Your task to perform on an android device: open app "Spotify: Music and Podcasts" (install if not already installed) Image 0: 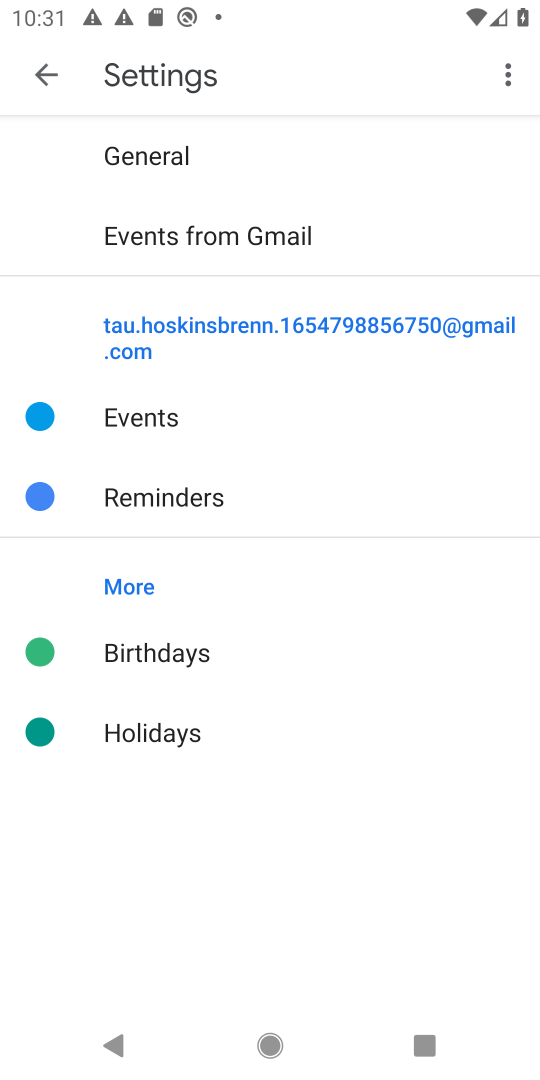
Step 0: drag from (313, 357) to (362, 946)
Your task to perform on an android device: open app "Spotify: Music and Podcasts" (install if not already installed) Image 1: 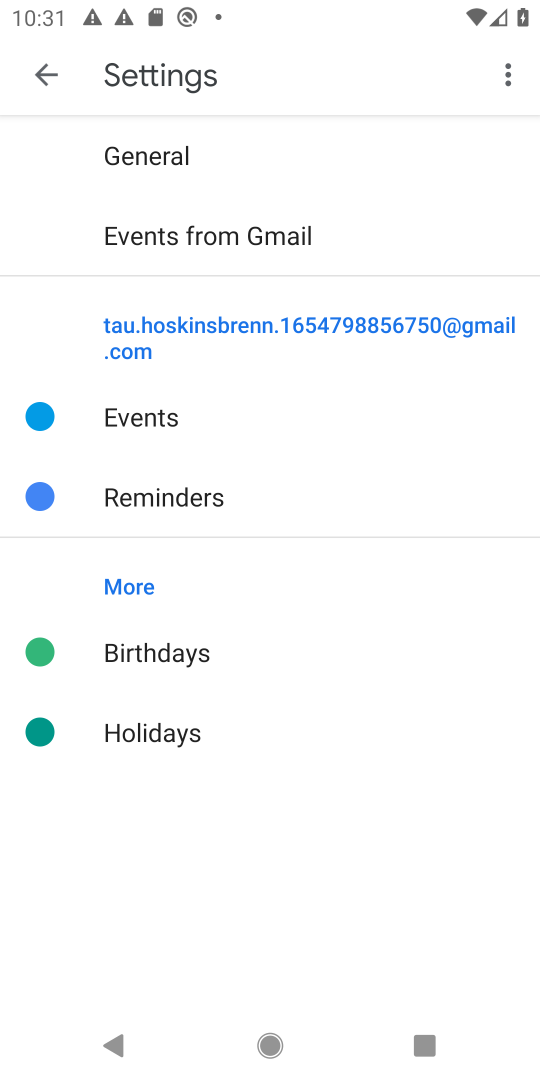
Step 1: press home button
Your task to perform on an android device: open app "Spotify: Music and Podcasts" (install if not already installed) Image 2: 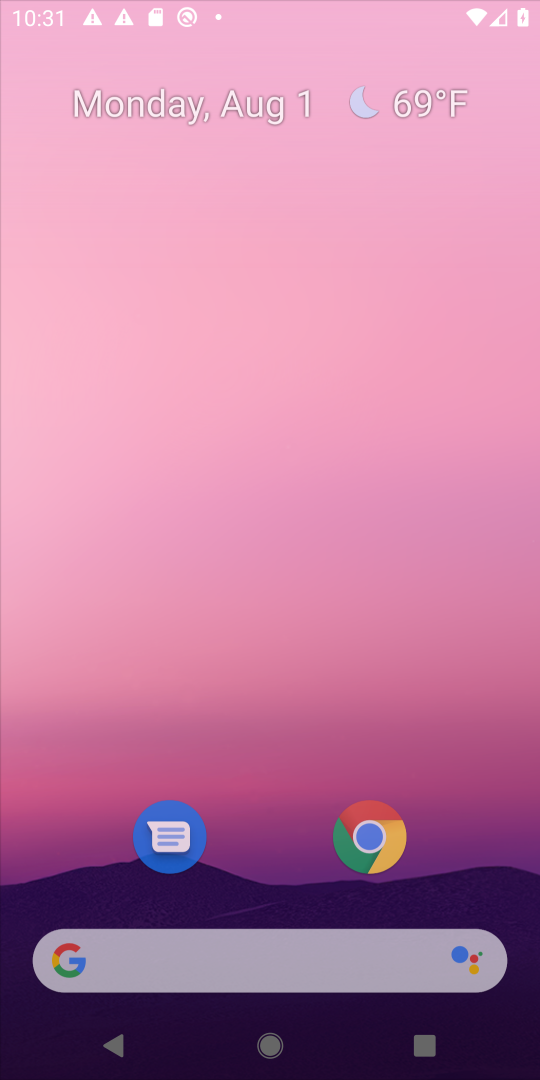
Step 2: drag from (294, 690) to (418, 54)
Your task to perform on an android device: open app "Spotify: Music and Podcasts" (install if not already installed) Image 3: 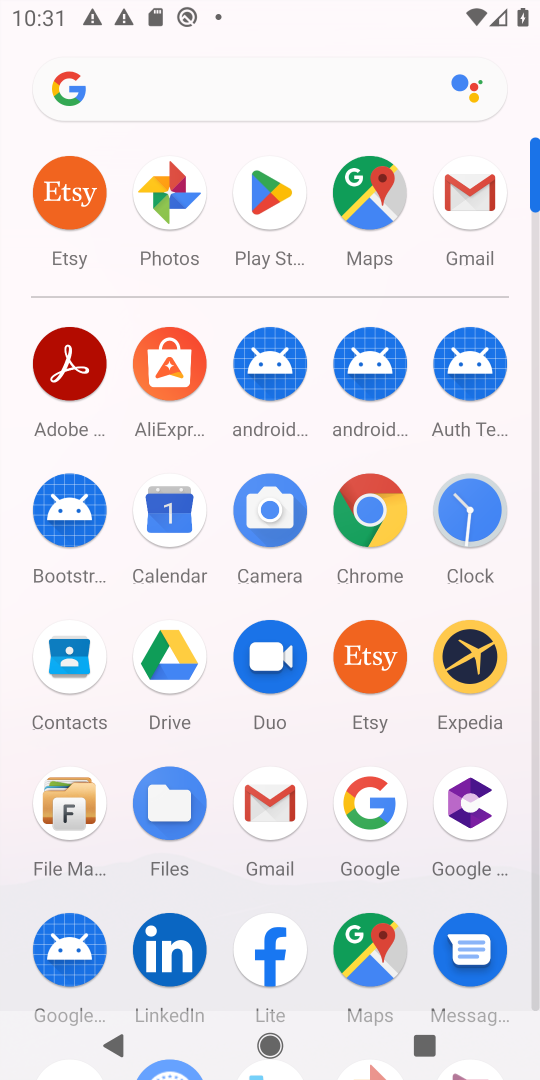
Step 3: click (262, 203)
Your task to perform on an android device: open app "Spotify: Music and Podcasts" (install if not already installed) Image 4: 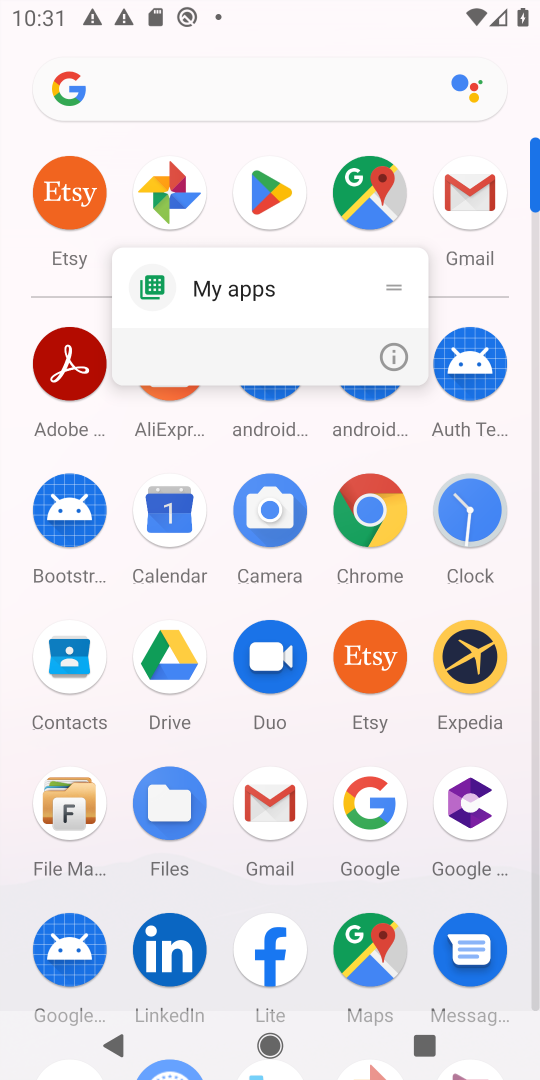
Step 4: click (390, 360)
Your task to perform on an android device: open app "Spotify: Music and Podcasts" (install if not already installed) Image 5: 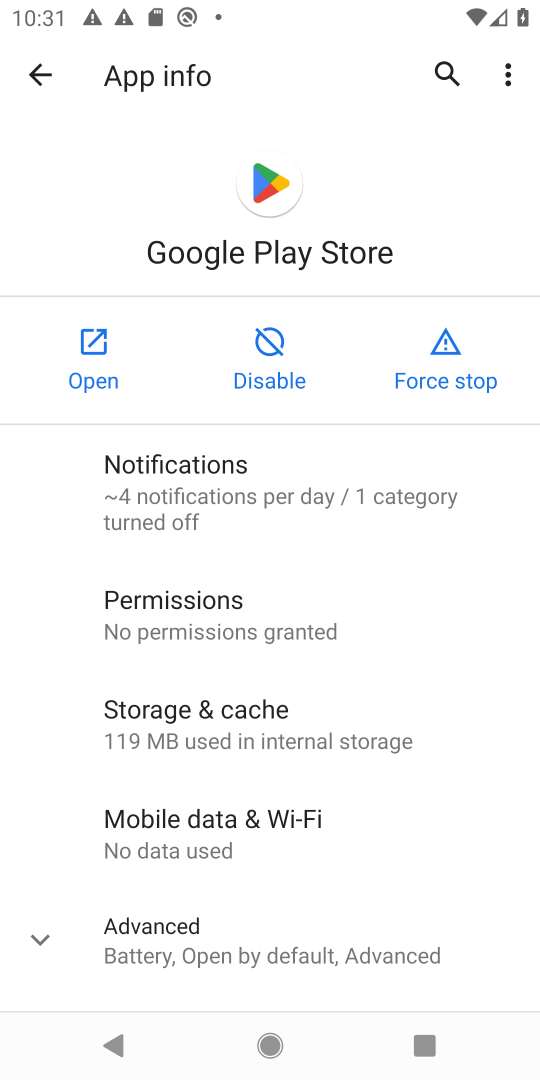
Step 5: click (88, 349)
Your task to perform on an android device: open app "Spotify: Music and Podcasts" (install if not already installed) Image 6: 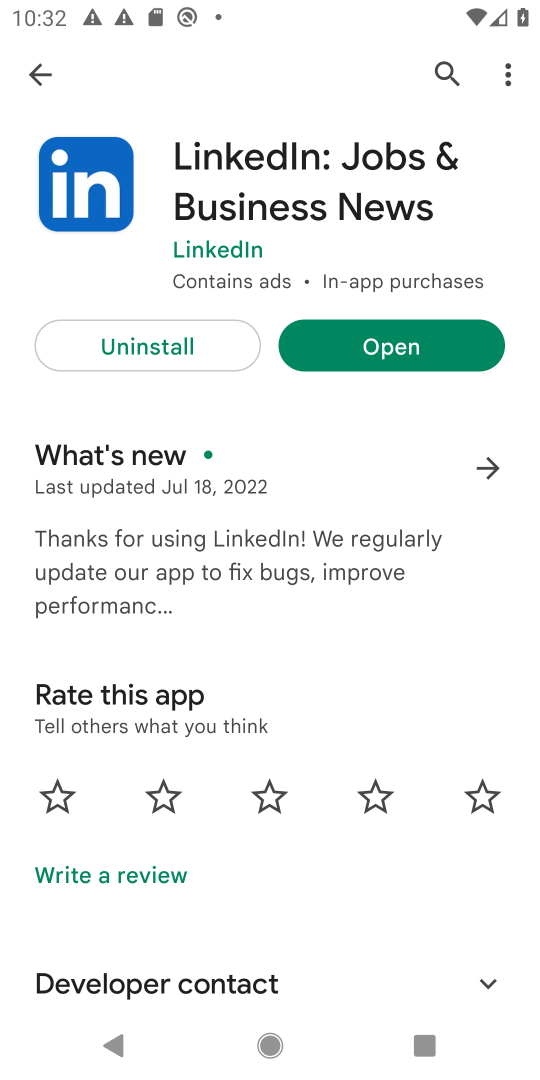
Step 6: click (439, 76)
Your task to perform on an android device: open app "Spotify: Music and Podcasts" (install if not already installed) Image 7: 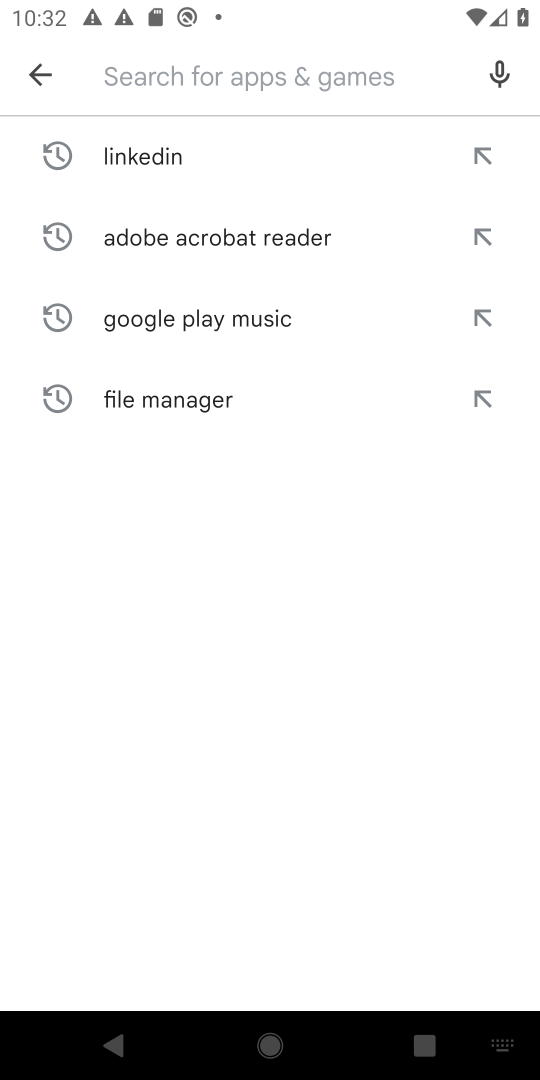
Step 7: type "Spotify: Music and Podcasts"
Your task to perform on an android device: open app "Spotify: Music and Podcasts" (install if not already installed) Image 8: 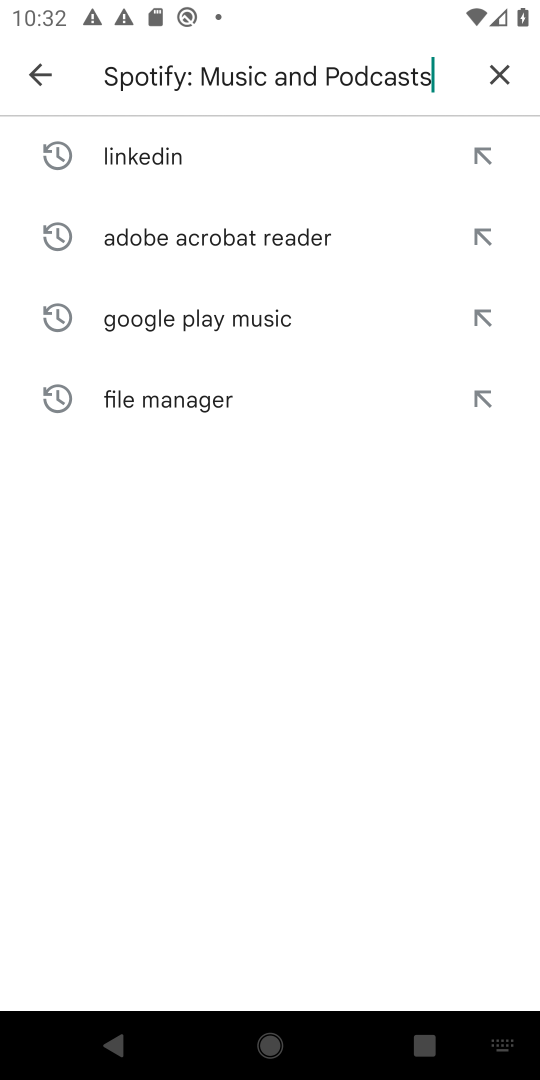
Step 8: type ""
Your task to perform on an android device: open app "Spotify: Music and Podcasts" (install if not already installed) Image 9: 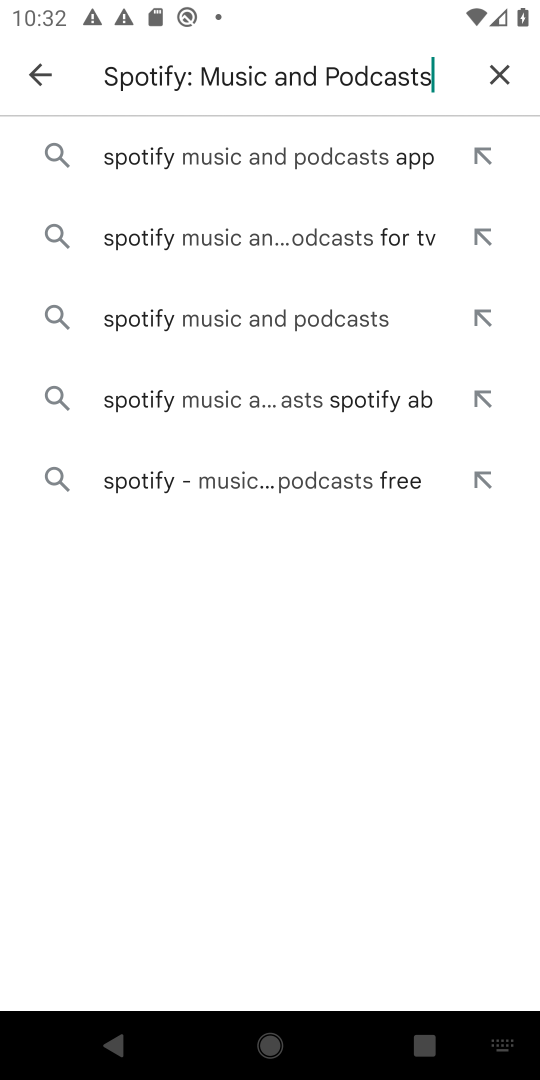
Step 9: click (124, 149)
Your task to perform on an android device: open app "Spotify: Music and Podcasts" (install if not already installed) Image 10: 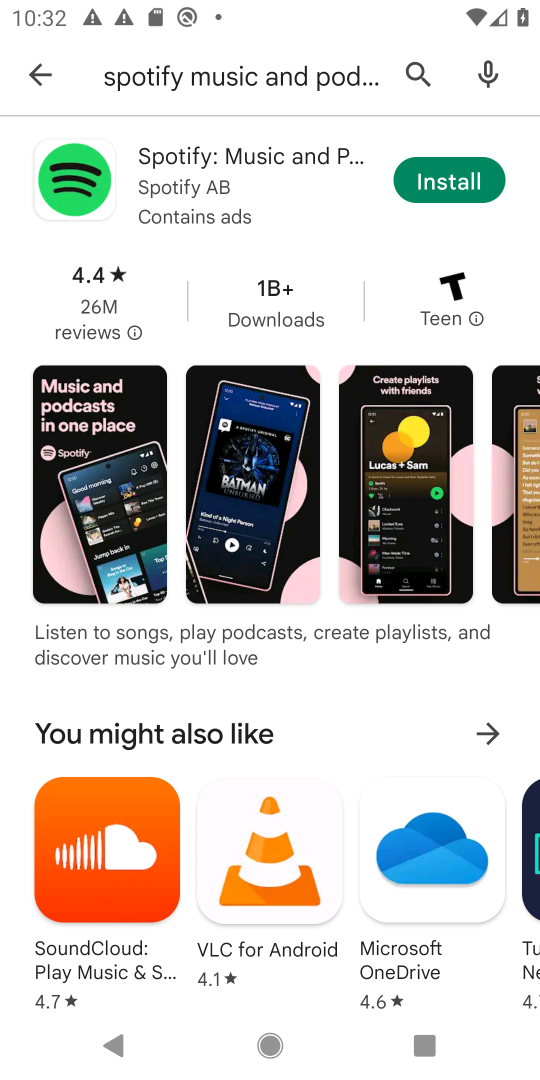
Step 10: click (169, 180)
Your task to perform on an android device: open app "Spotify: Music and Podcasts" (install if not already installed) Image 11: 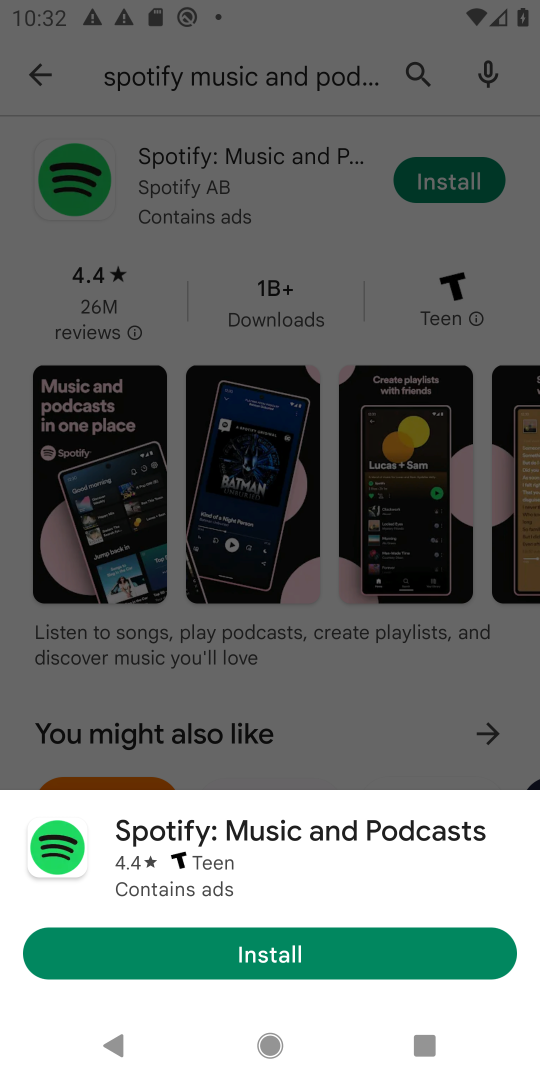
Step 11: click (291, 960)
Your task to perform on an android device: open app "Spotify: Music and Podcasts" (install if not already installed) Image 12: 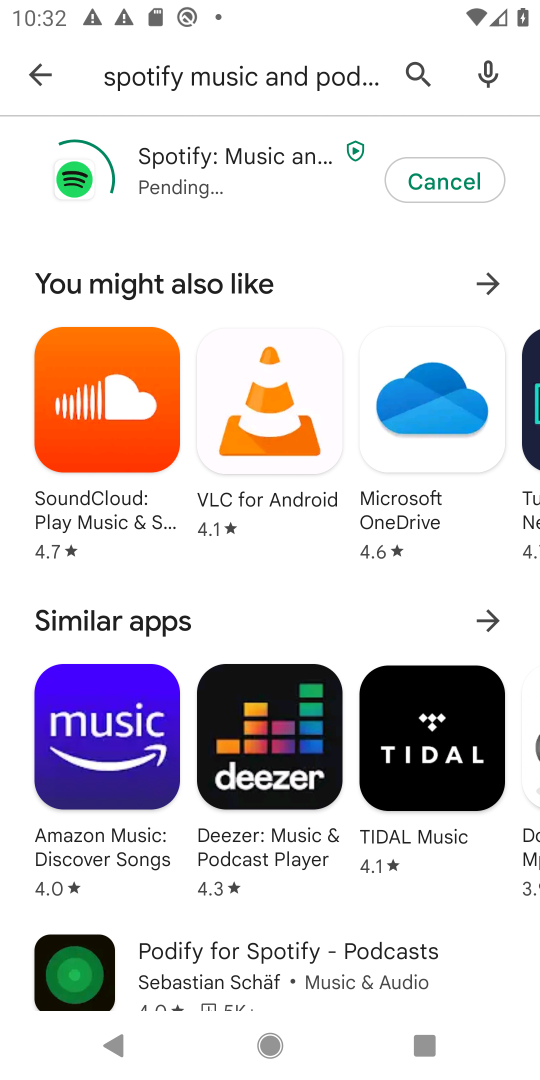
Step 12: click (159, 155)
Your task to perform on an android device: open app "Spotify: Music and Podcasts" (install if not already installed) Image 13: 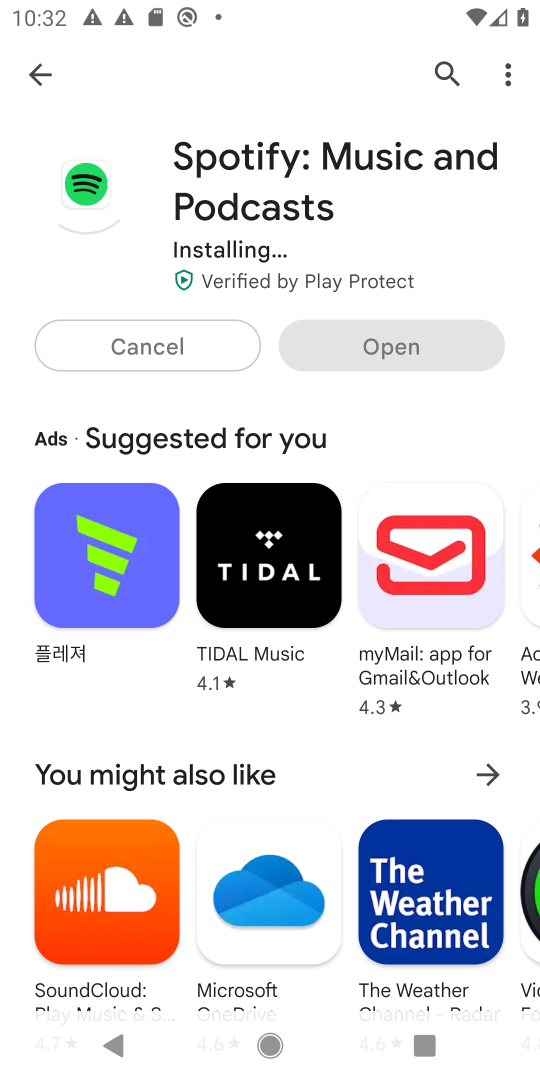
Step 13: drag from (289, 606) to (370, 937)
Your task to perform on an android device: open app "Spotify: Music and Podcasts" (install if not already installed) Image 14: 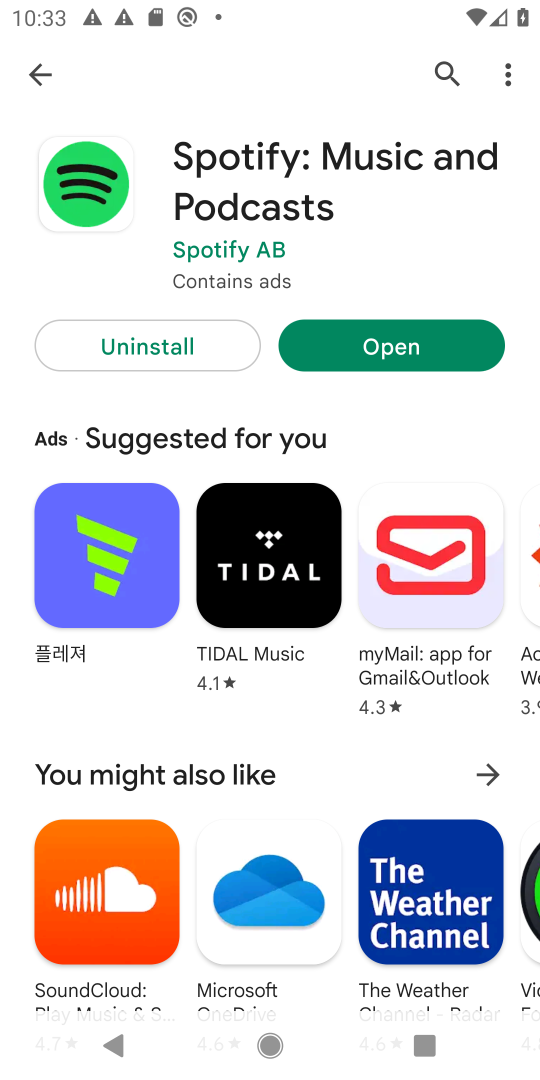
Step 14: click (420, 332)
Your task to perform on an android device: open app "Spotify: Music and Podcasts" (install if not already installed) Image 15: 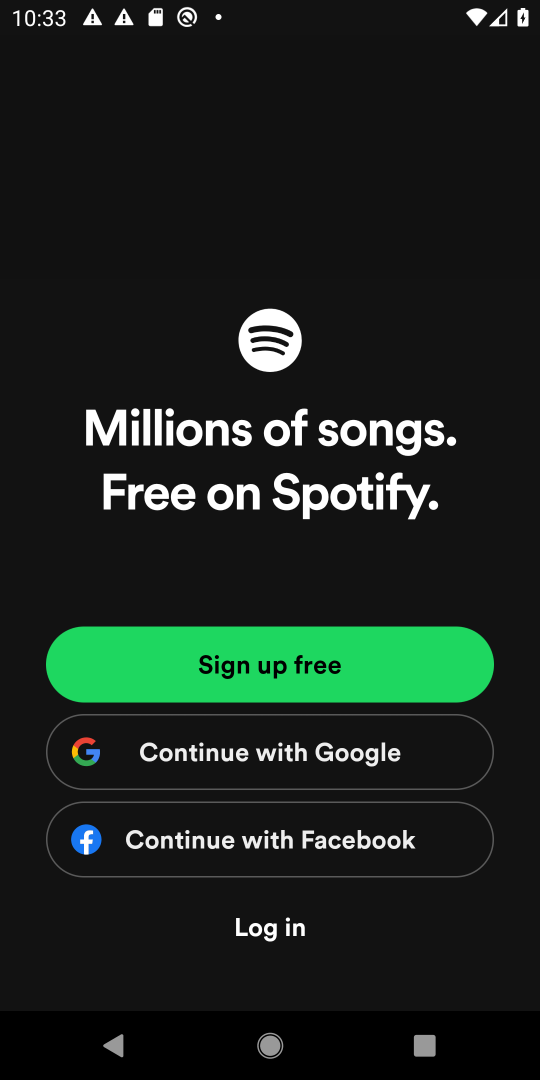
Step 15: task complete